Your task to perform on an android device: Turn off the flashlight Image 0: 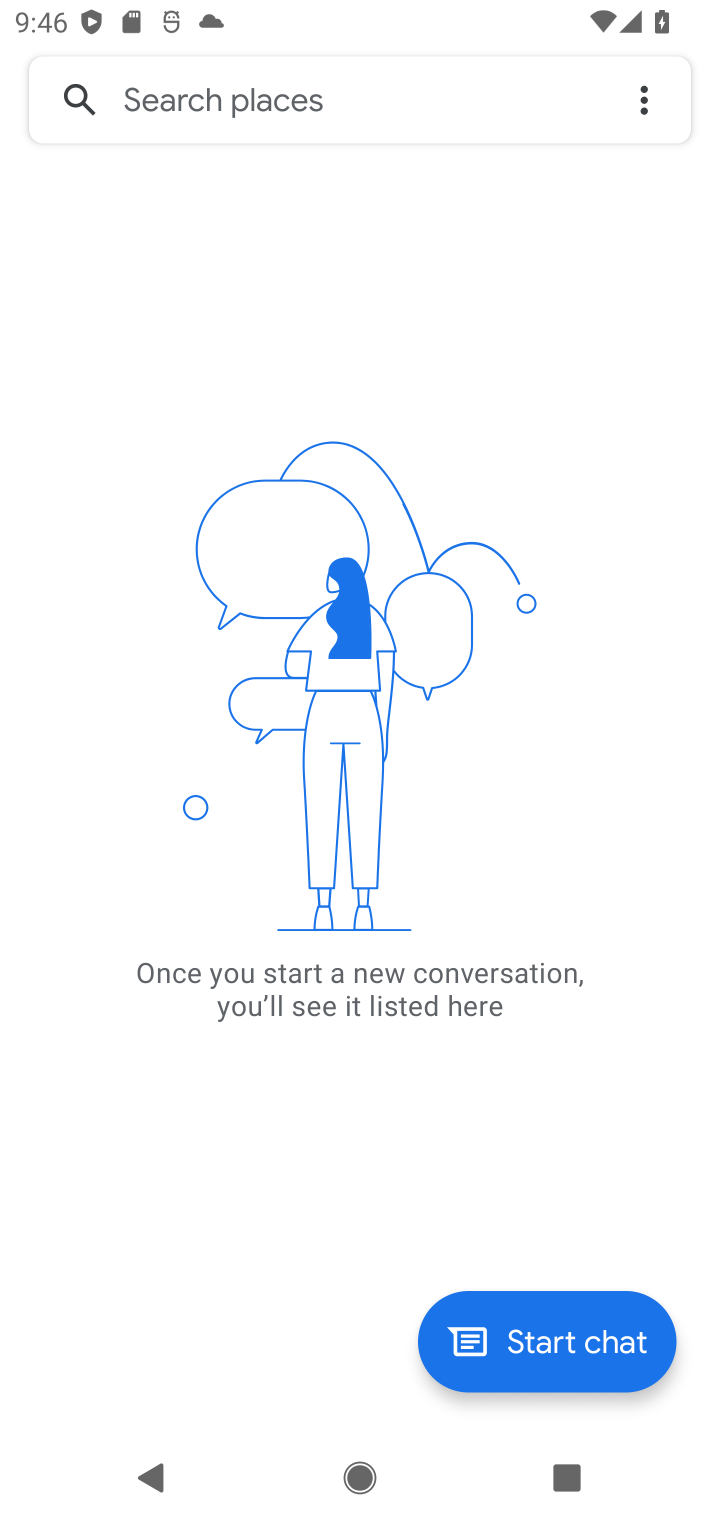
Step 0: press home button
Your task to perform on an android device: Turn off the flashlight Image 1: 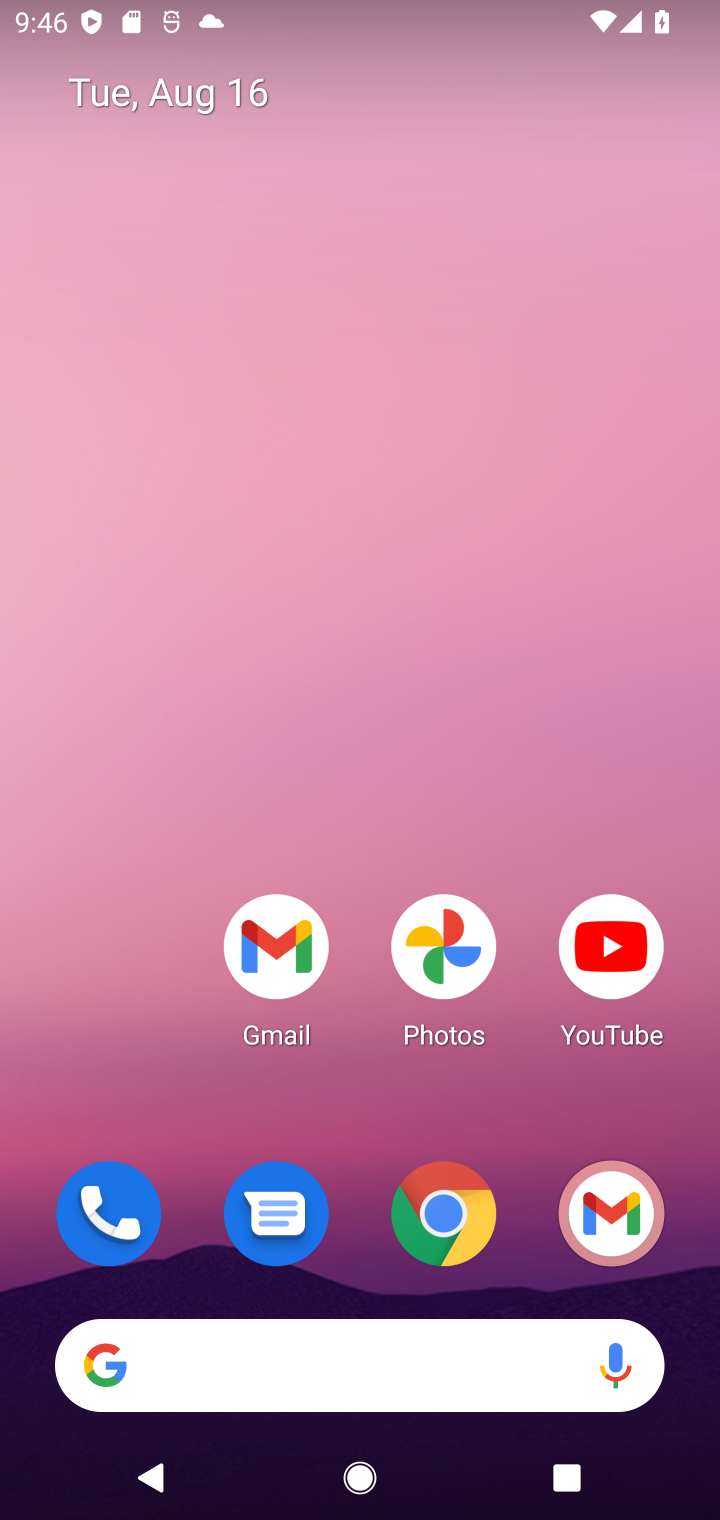
Step 1: drag from (179, 1308) to (234, 552)
Your task to perform on an android device: Turn off the flashlight Image 2: 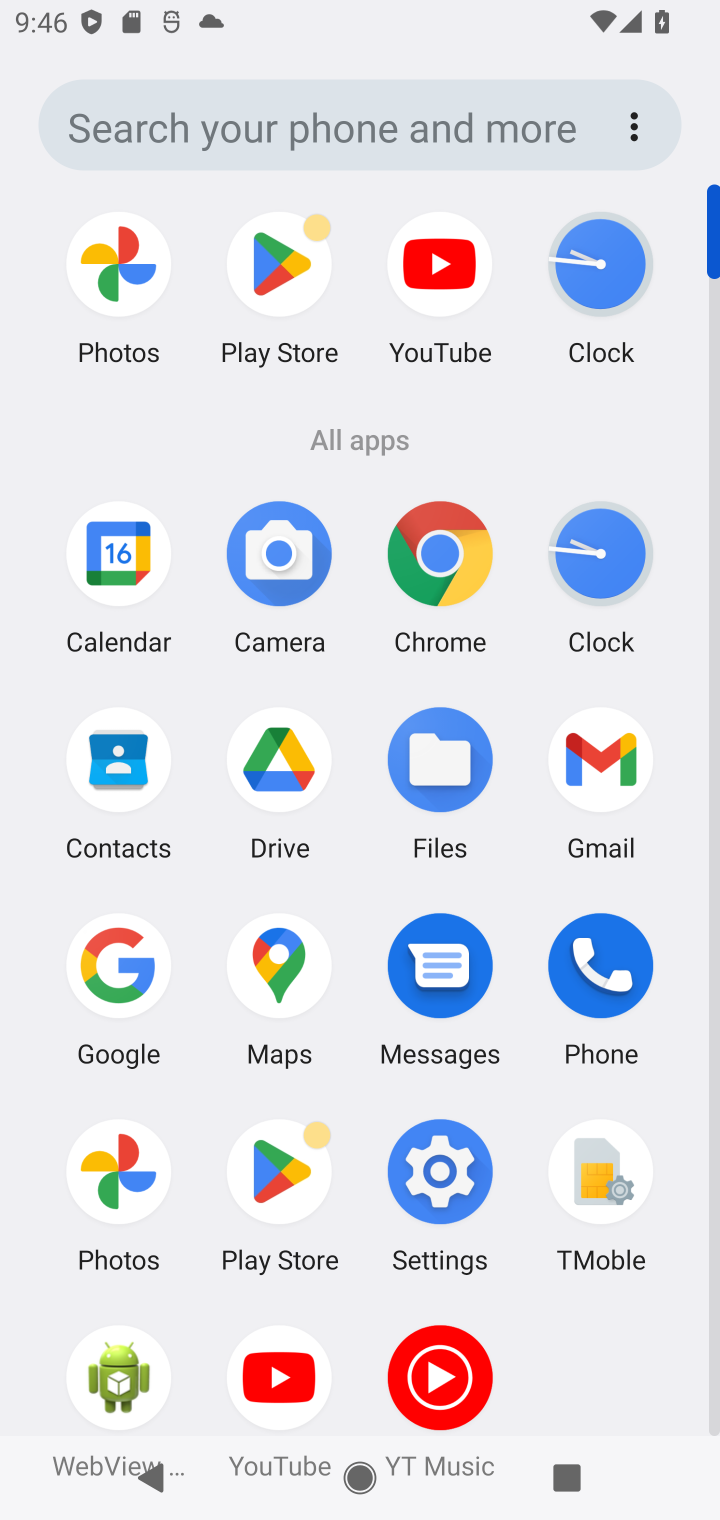
Step 2: click (452, 1165)
Your task to perform on an android device: Turn off the flashlight Image 3: 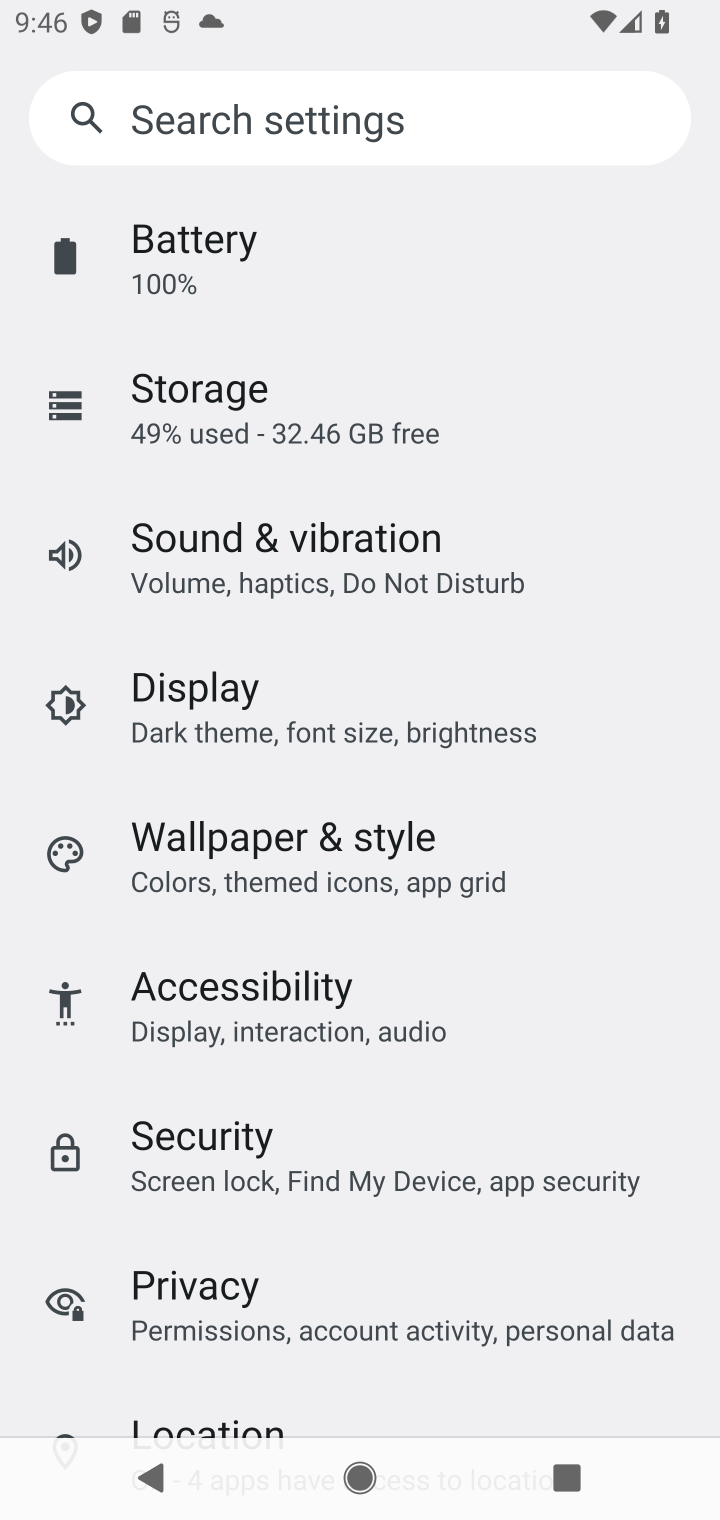
Step 3: task complete